Your task to perform on an android device: set the stopwatch Image 0: 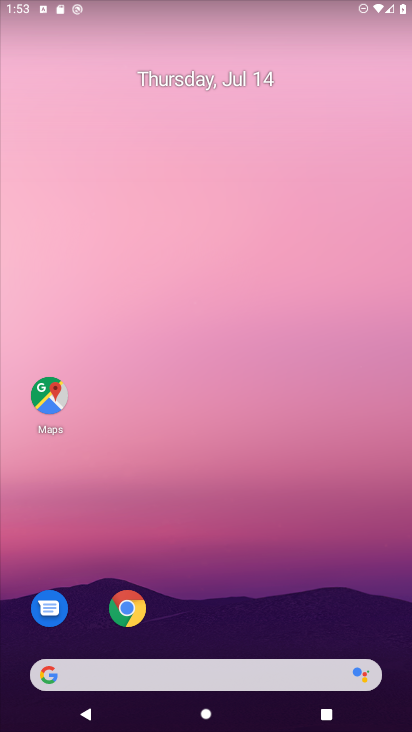
Step 0: drag from (383, 641) to (347, 211)
Your task to perform on an android device: set the stopwatch Image 1: 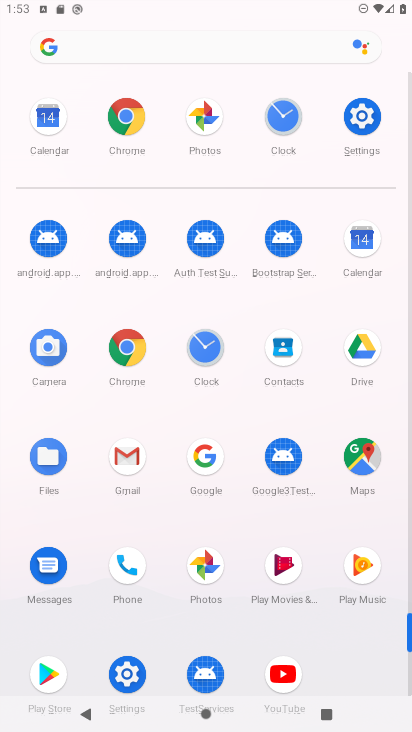
Step 1: click (202, 344)
Your task to perform on an android device: set the stopwatch Image 2: 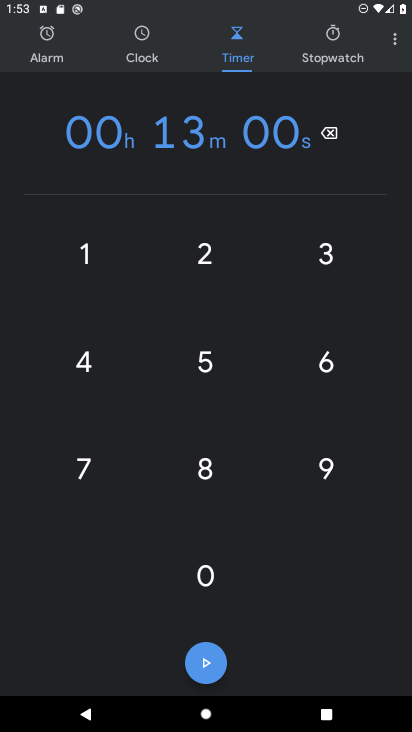
Step 2: click (338, 46)
Your task to perform on an android device: set the stopwatch Image 3: 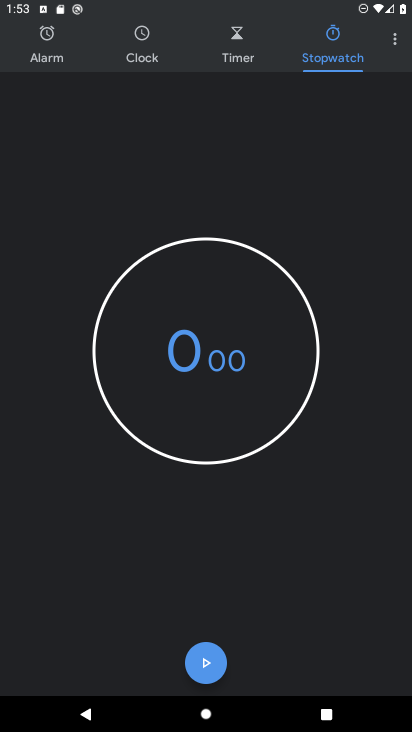
Step 3: task complete